Your task to perform on an android device: Go to Amazon Image 0: 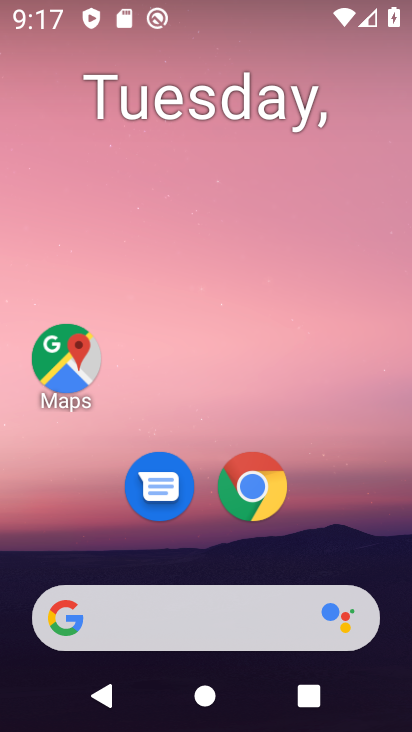
Step 0: press home button
Your task to perform on an android device: Go to Amazon Image 1: 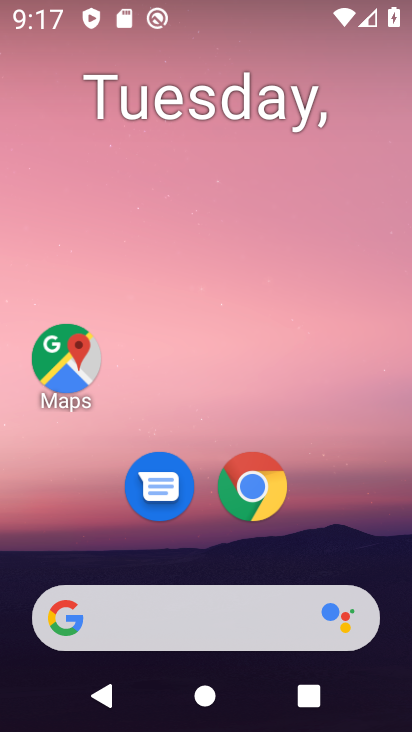
Step 1: drag from (382, 545) to (376, 207)
Your task to perform on an android device: Go to Amazon Image 2: 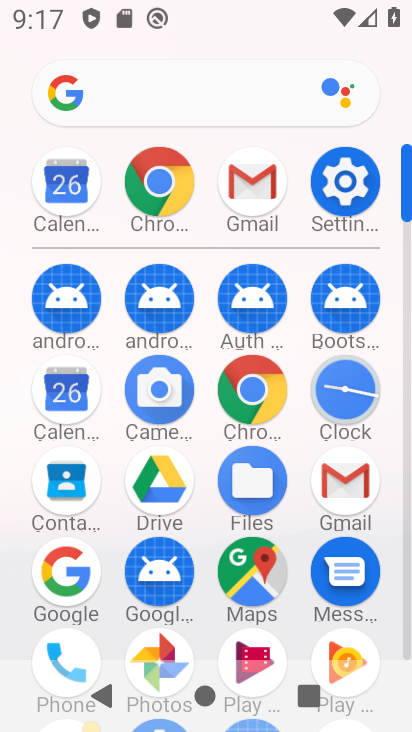
Step 2: click (256, 397)
Your task to perform on an android device: Go to Amazon Image 3: 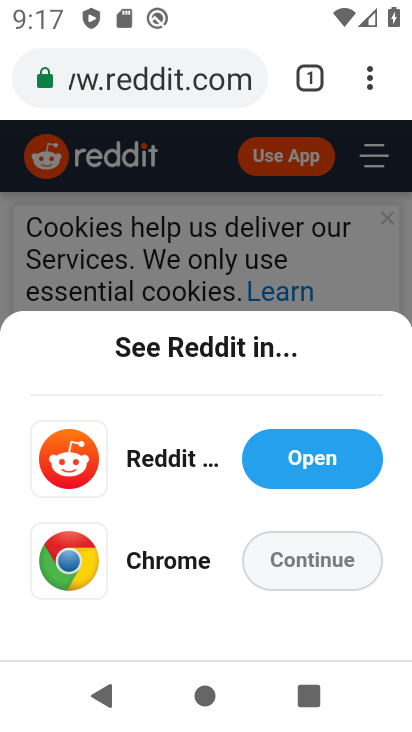
Step 3: click (217, 95)
Your task to perform on an android device: Go to Amazon Image 4: 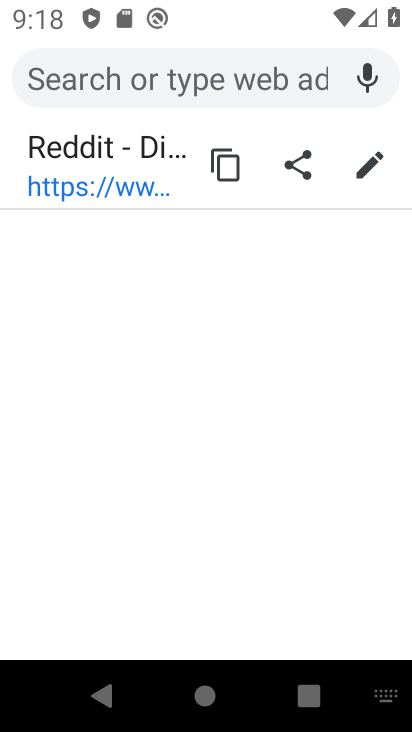
Step 4: type "amazon"
Your task to perform on an android device: Go to Amazon Image 5: 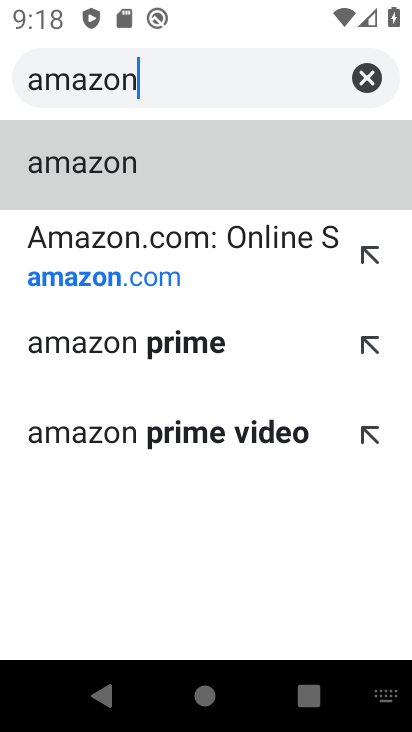
Step 5: click (309, 178)
Your task to perform on an android device: Go to Amazon Image 6: 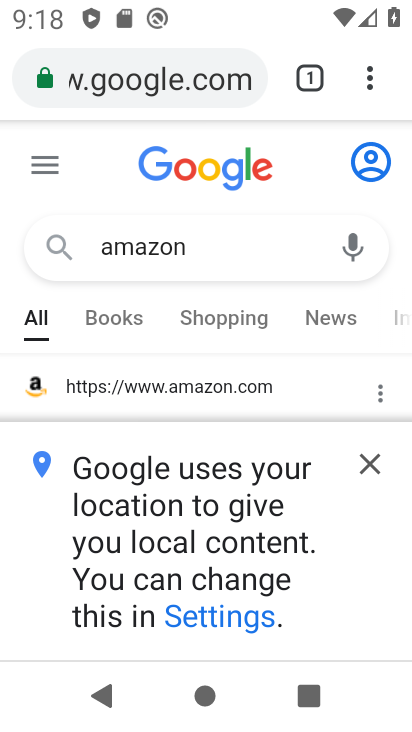
Step 6: task complete